Your task to perform on an android device: change timer sound Image 0: 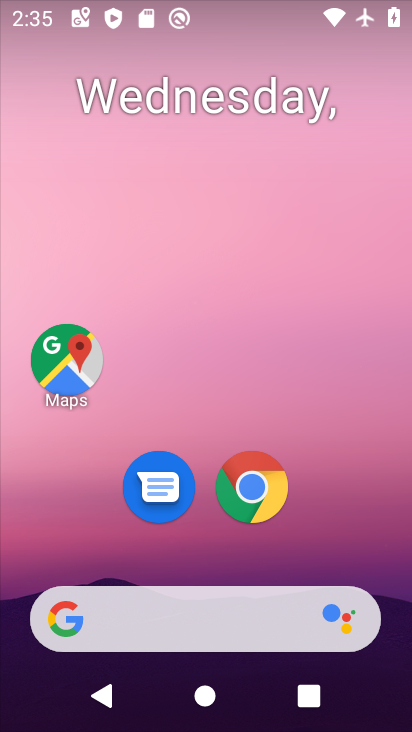
Step 0: drag from (336, 455) to (313, 1)
Your task to perform on an android device: change timer sound Image 1: 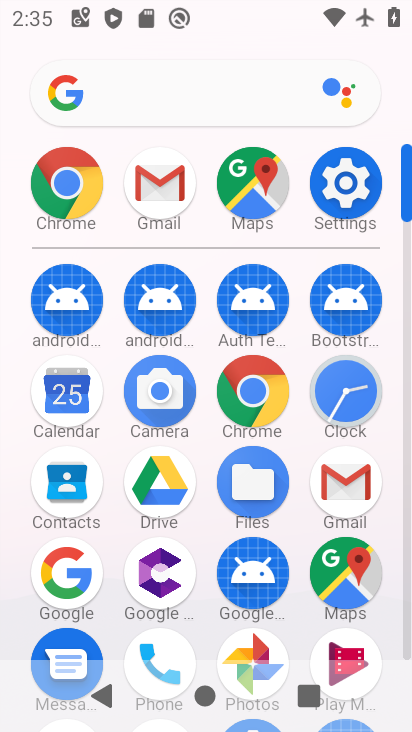
Step 1: click (346, 403)
Your task to perform on an android device: change timer sound Image 2: 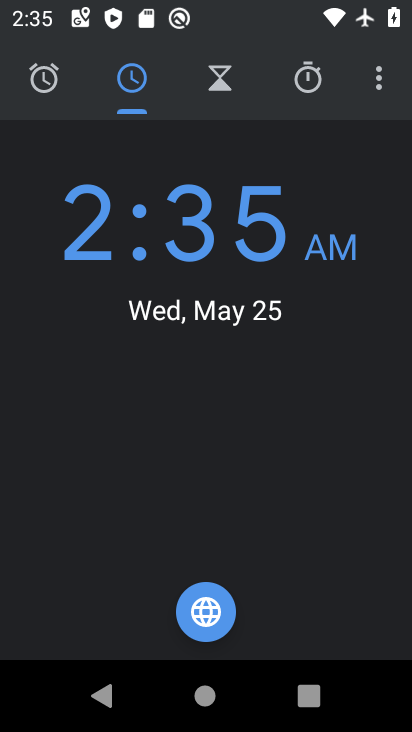
Step 2: click (224, 88)
Your task to perform on an android device: change timer sound Image 3: 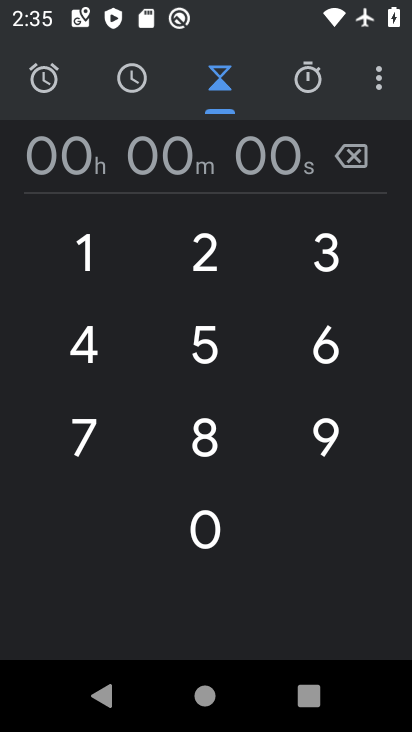
Step 3: click (374, 71)
Your task to perform on an android device: change timer sound Image 4: 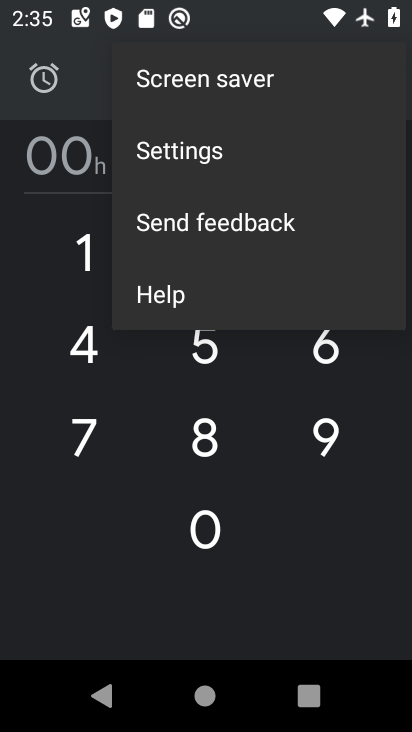
Step 4: click (194, 147)
Your task to perform on an android device: change timer sound Image 5: 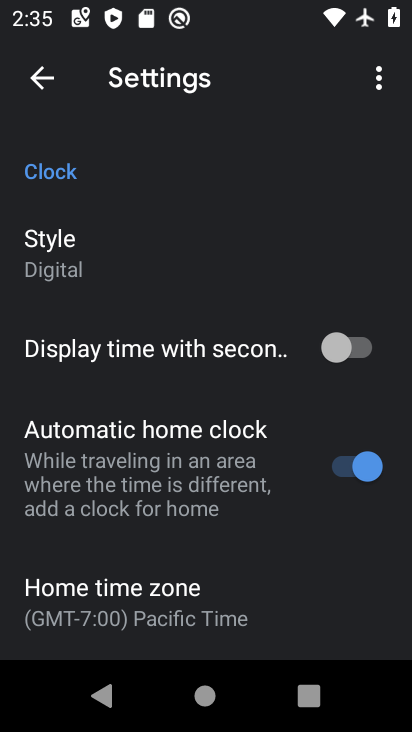
Step 5: drag from (214, 580) to (259, 174)
Your task to perform on an android device: change timer sound Image 6: 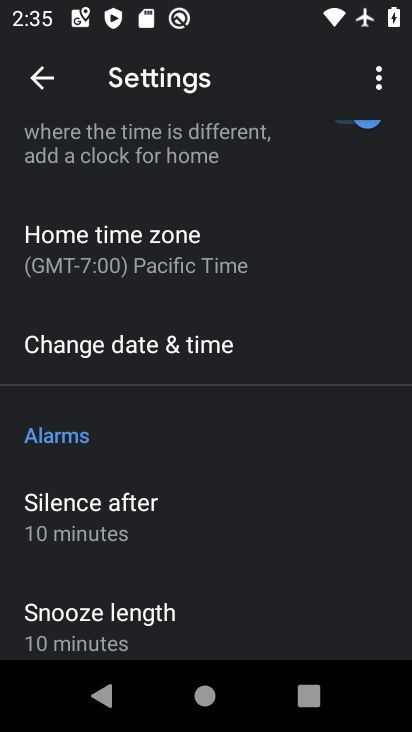
Step 6: drag from (207, 551) to (235, 210)
Your task to perform on an android device: change timer sound Image 7: 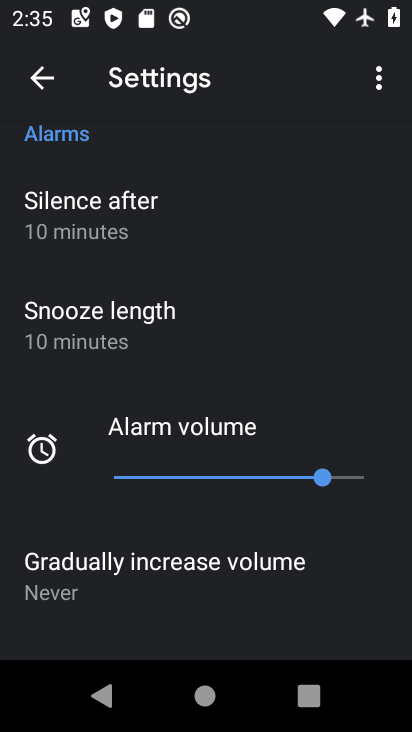
Step 7: drag from (168, 535) to (242, 162)
Your task to perform on an android device: change timer sound Image 8: 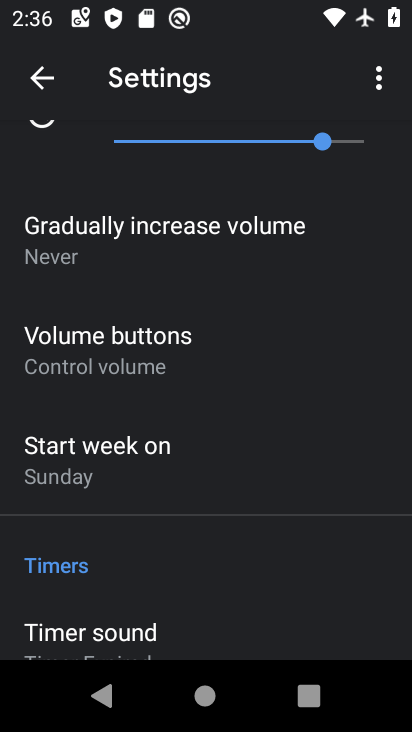
Step 8: drag from (266, 418) to (292, 660)
Your task to perform on an android device: change timer sound Image 9: 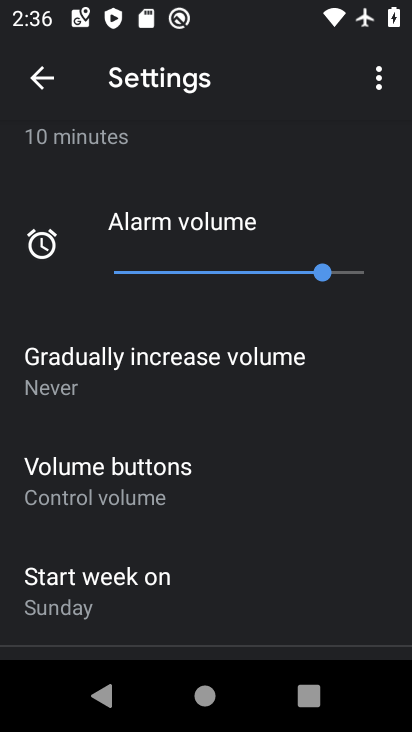
Step 9: drag from (258, 598) to (208, 287)
Your task to perform on an android device: change timer sound Image 10: 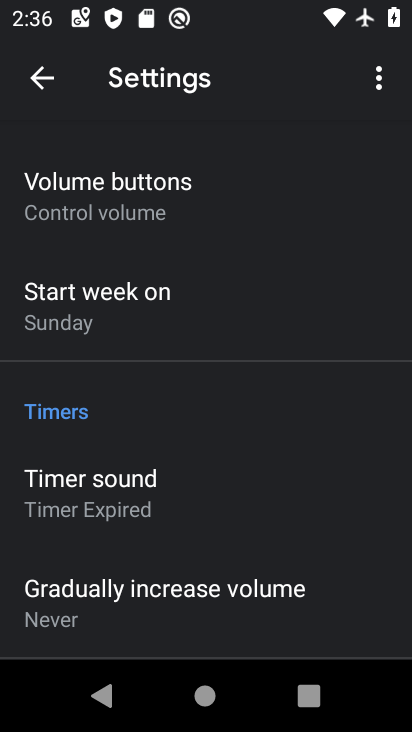
Step 10: click (109, 489)
Your task to perform on an android device: change timer sound Image 11: 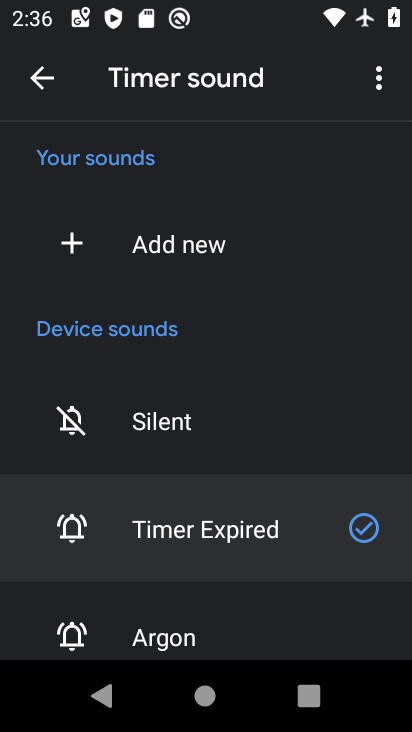
Step 11: click (110, 635)
Your task to perform on an android device: change timer sound Image 12: 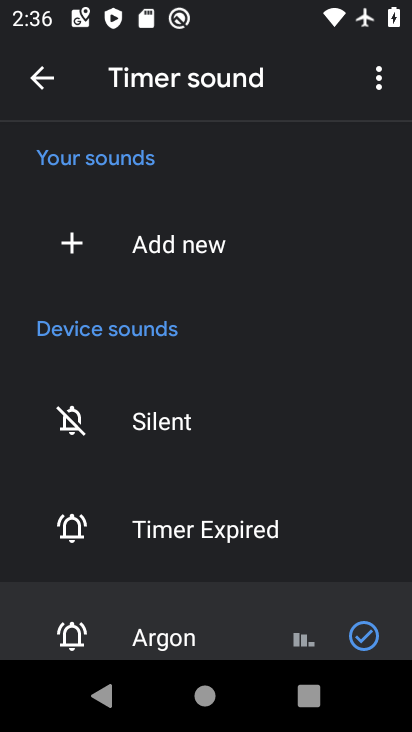
Step 12: task complete